Your task to perform on an android device: turn on notifications settings in the gmail app Image 0: 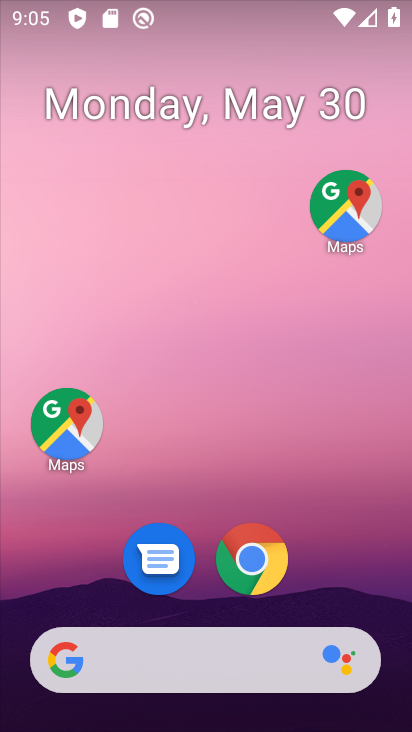
Step 0: drag from (358, 538) to (322, 141)
Your task to perform on an android device: turn on notifications settings in the gmail app Image 1: 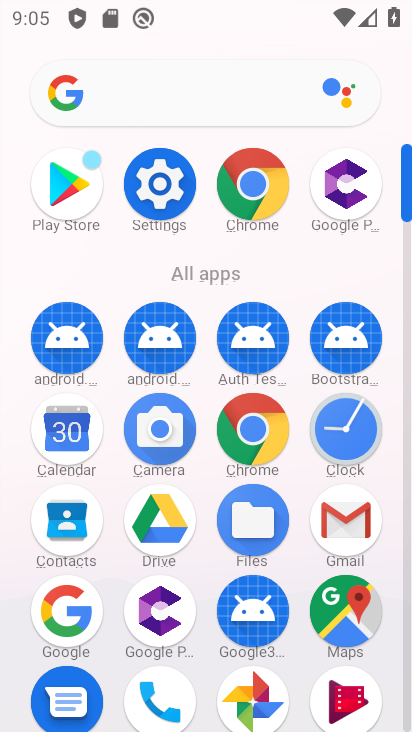
Step 1: click (346, 529)
Your task to perform on an android device: turn on notifications settings in the gmail app Image 2: 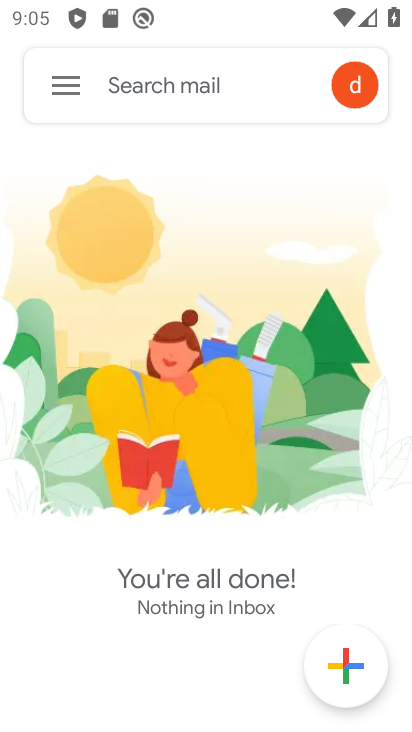
Step 2: click (77, 74)
Your task to perform on an android device: turn on notifications settings in the gmail app Image 3: 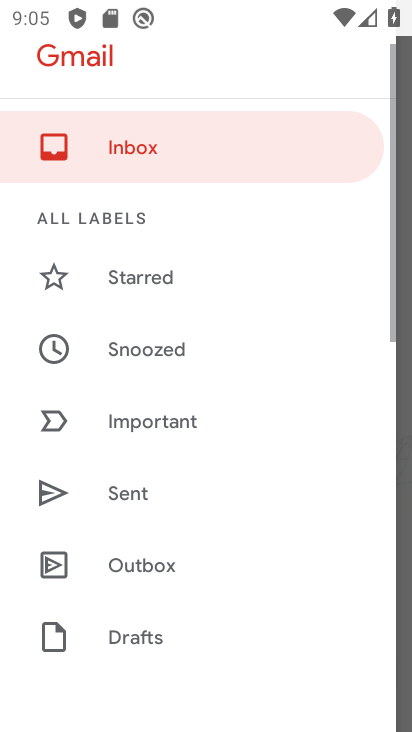
Step 3: drag from (167, 655) to (220, 105)
Your task to perform on an android device: turn on notifications settings in the gmail app Image 4: 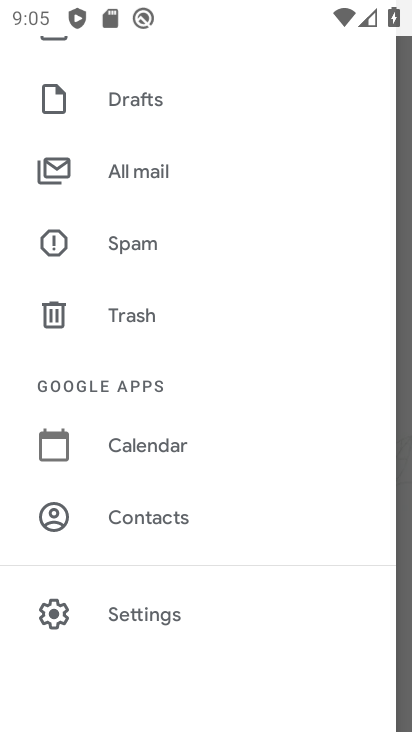
Step 4: click (131, 622)
Your task to perform on an android device: turn on notifications settings in the gmail app Image 5: 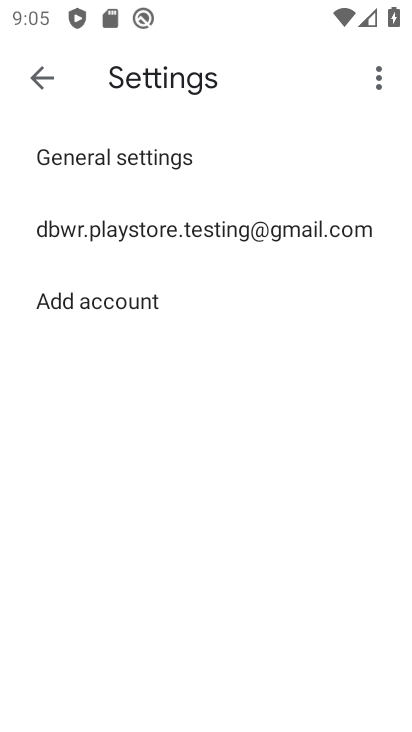
Step 5: click (204, 237)
Your task to perform on an android device: turn on notifications settings in the gmail app Image 6: 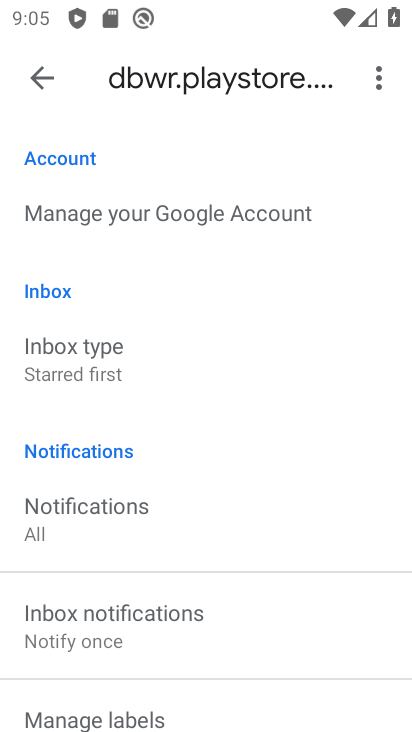
Step 6: drag from (214, 644) to (308, 242)
Your task to perform on an android device: turn on notifications settings in the gmail app Image 7: 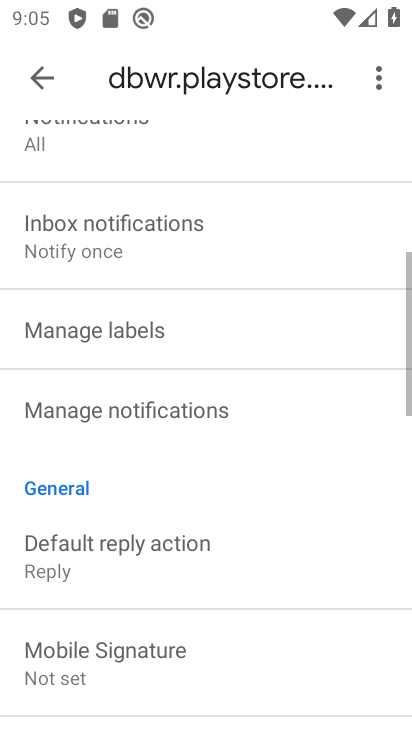
Step 7: click (183, 434)
Your task to perform on an android device: turn on notifications settings in the gmail app Image 8: 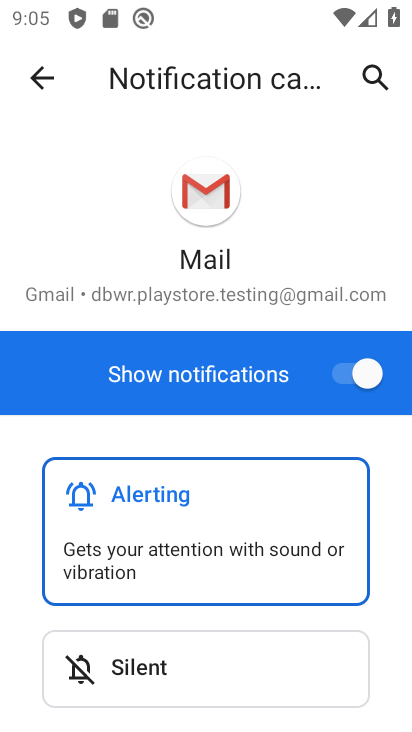
Step 8: task complete